Your task to perform on an android device: Open battery settings Image 0: 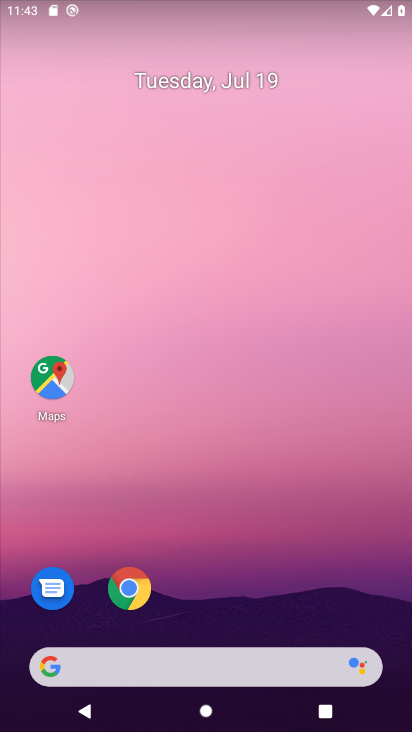
Step 0: drag from (190, 612) to (231, 25)
Your task to perform on an android device: Open battery settings Image 1: 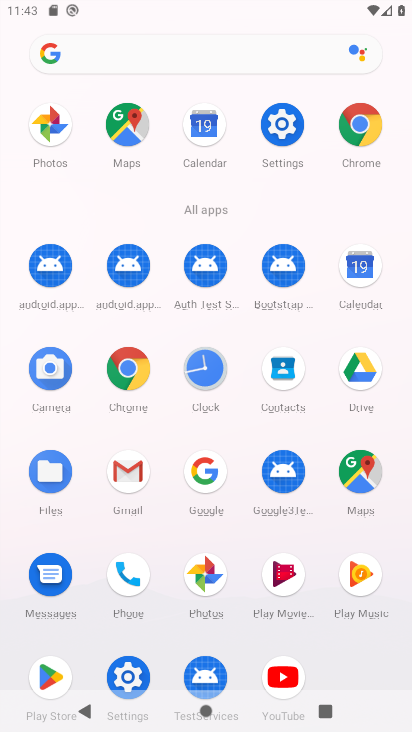
Step 1: click (127, 667)
Your task to perform on an android device: Open battery settings Image 2: 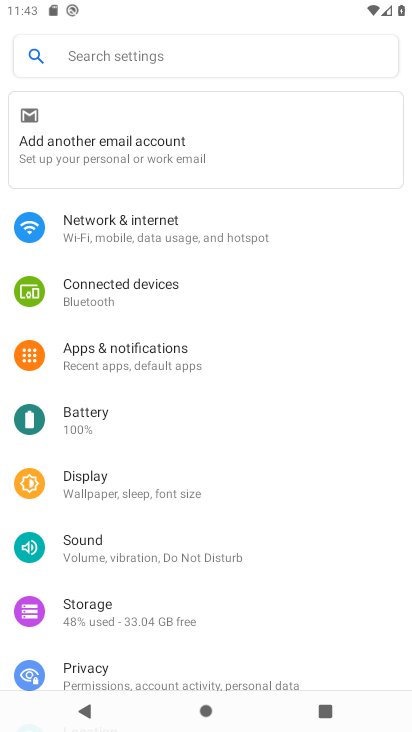
Step 2: click (86, 400)
Your task to perform on an android device: Open battery settings Image 3: 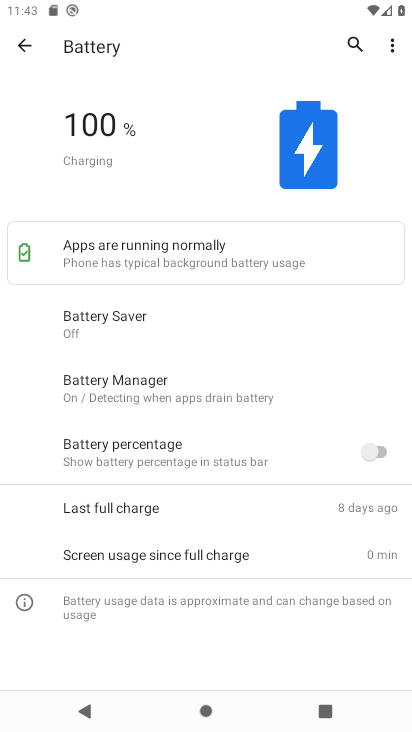
Step 3: task complete